Your task to perform on an android device: View the shopping cart on newegg.com. Add "razer huntsman" to the cart on newegg.com Image 0: 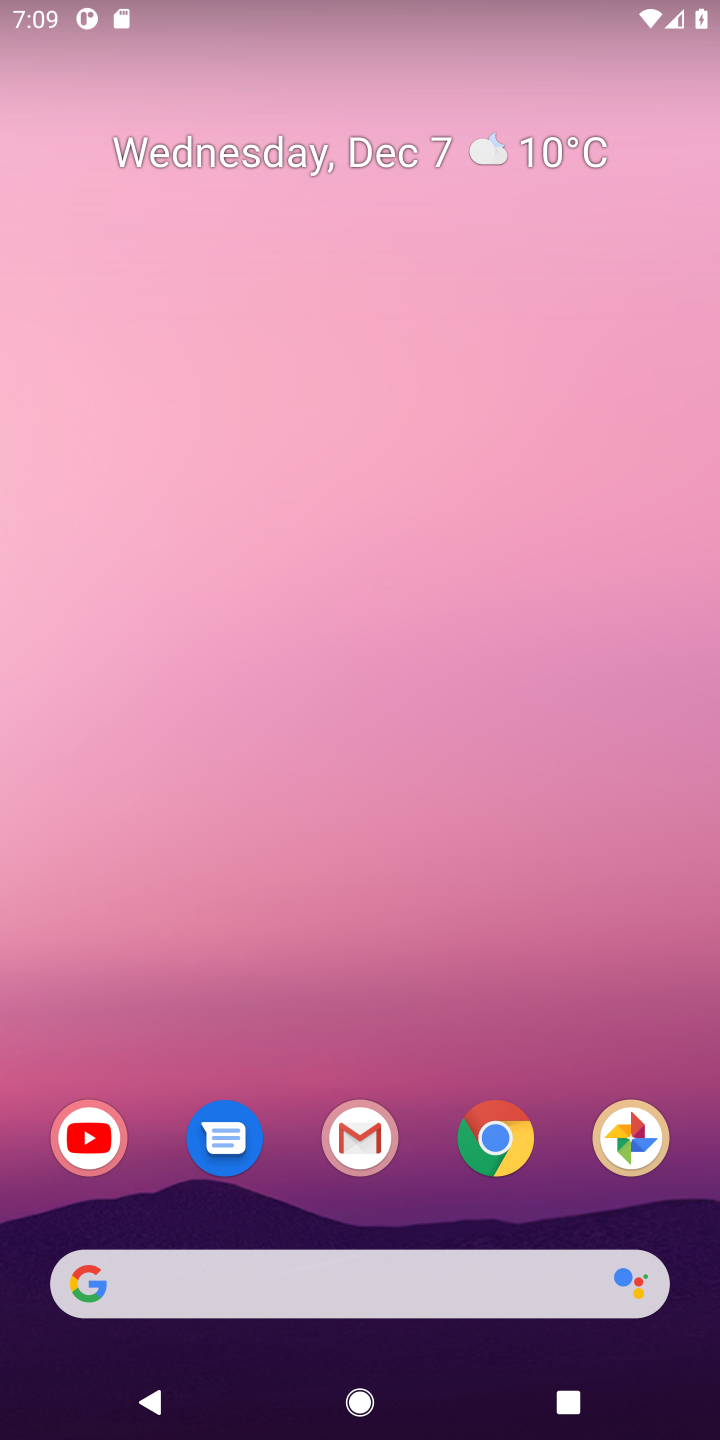
Step 0: press home button
Your task to perform on an android device: View the shopping cart on newegg.com. Add "razer huntsman" to the cart on newegg.com Image 1: 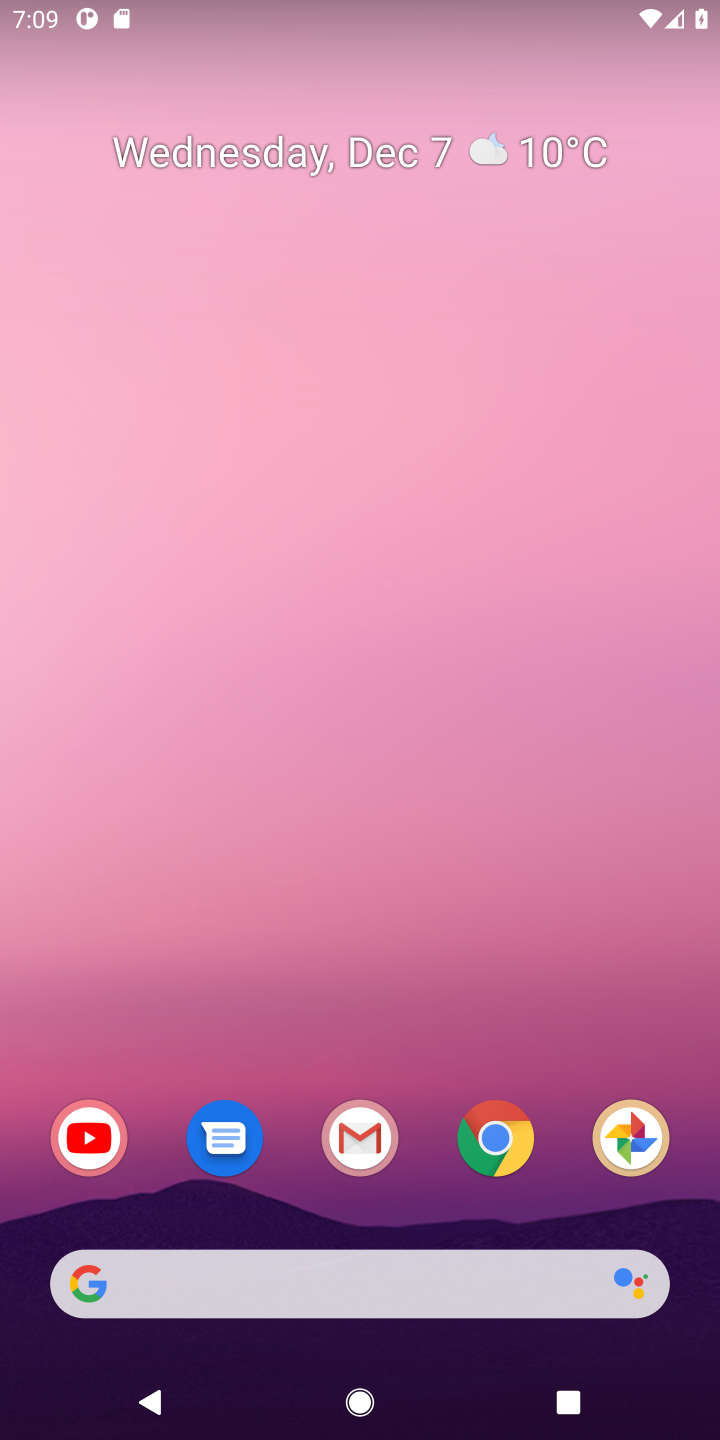
Step 1: click (151, 1285)
Your task to perform on an android device: View the shopping cart on newegg.com. Add "razer huntsman" to the cart on newegg.com Image 2: 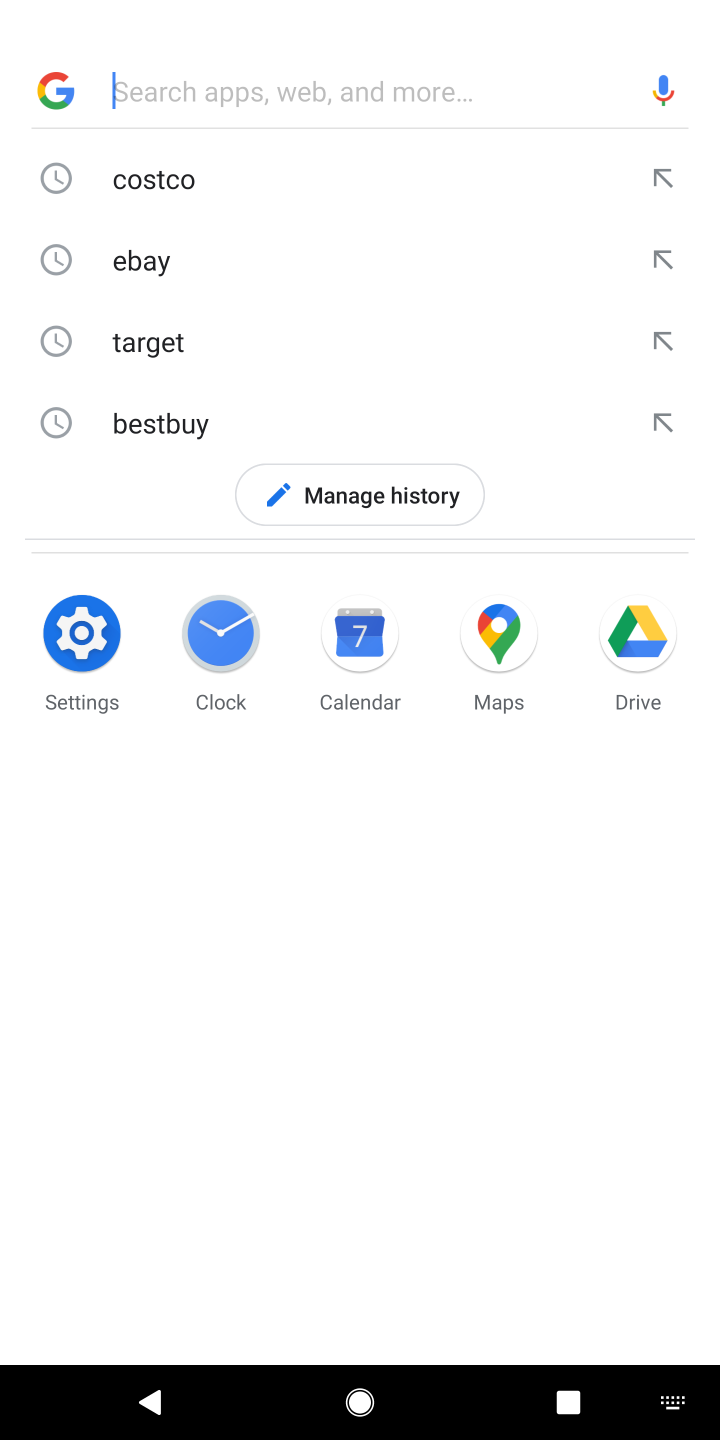
Step 2: type "newegg.com"
Your task to perform on an android device: View the shopping cart on newegg.com. Add "razer huntsman" to the cart on newegg.com Image 3: 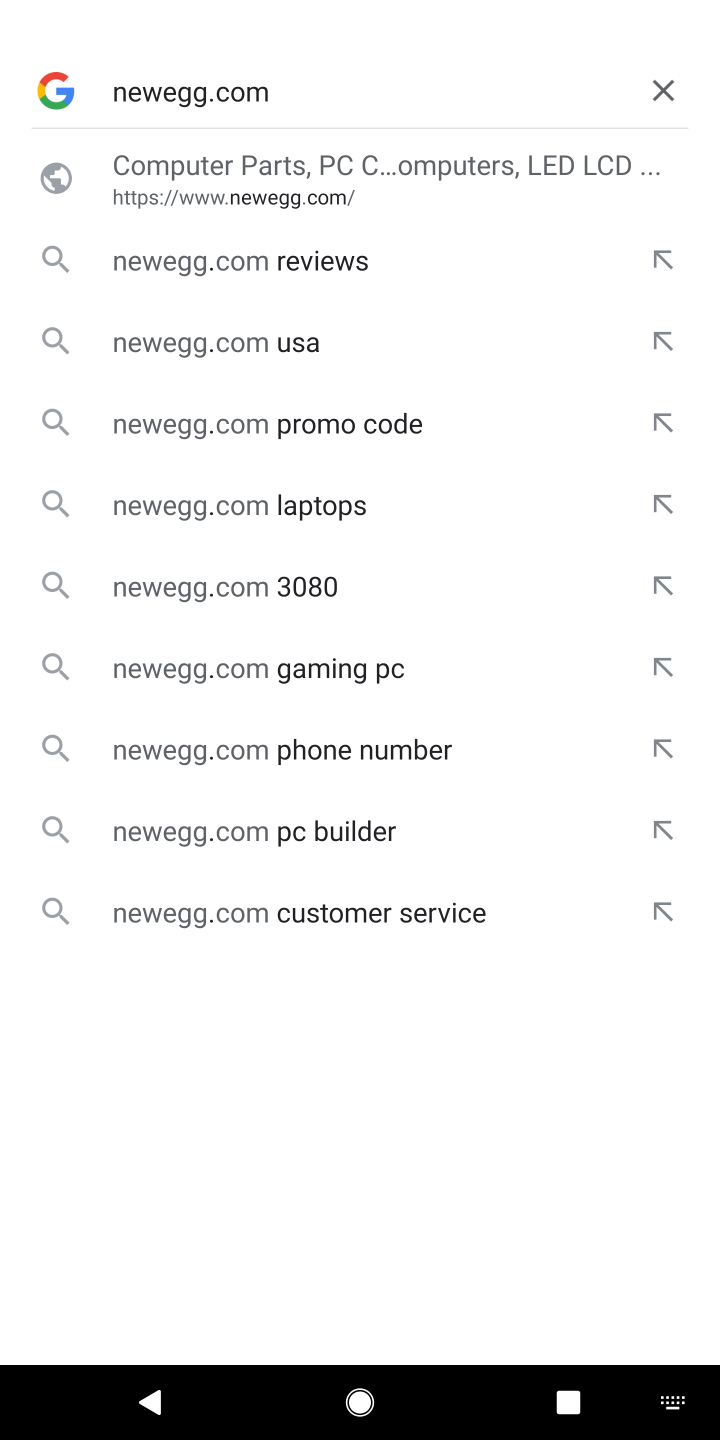
Step 3: press enter
Your task to perform on an android device: View the shopping cart on newegg.com. Add "razer huntsman" to the cart on newegg.com Image 4: 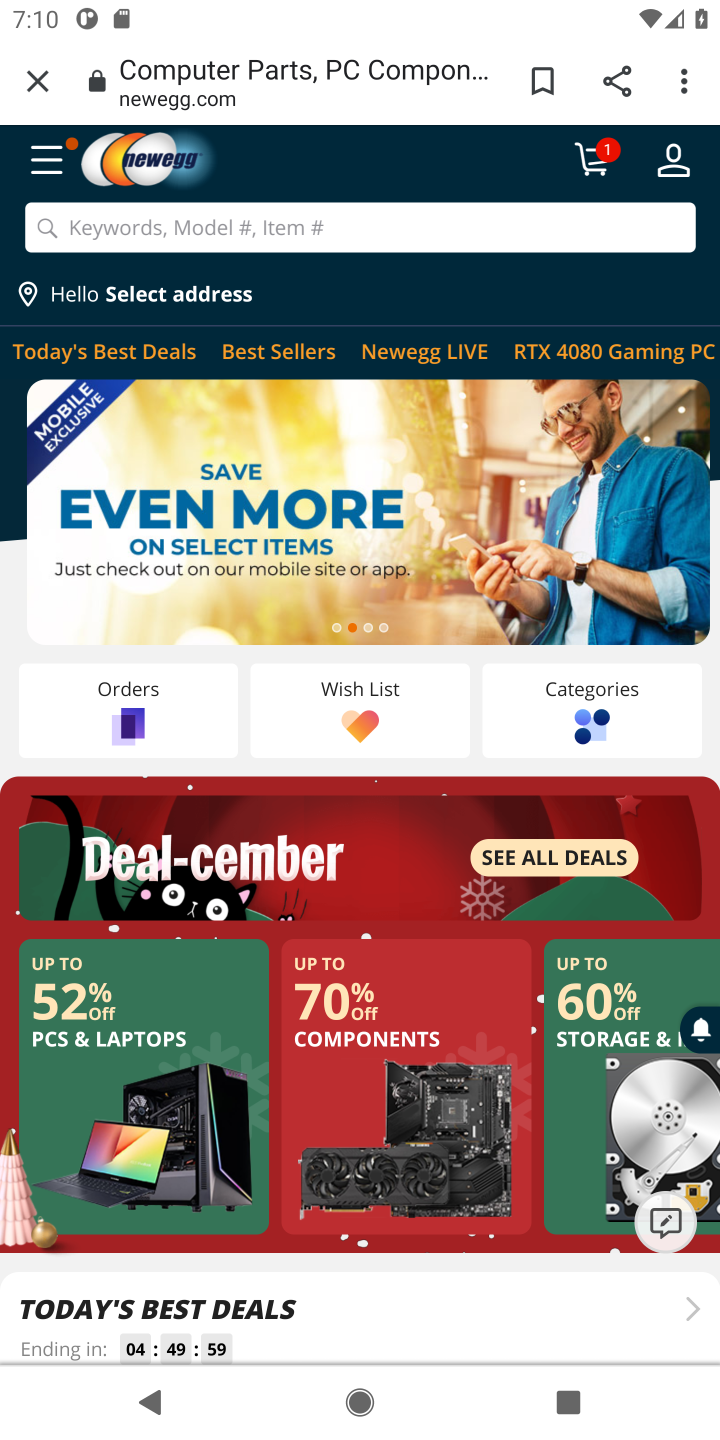
Step 4: click (592, 158)
Your task to perform on an android device: View the shopping cart on newegg.com. Add "razer huntsman" to the cart on newegg.com Image 5: 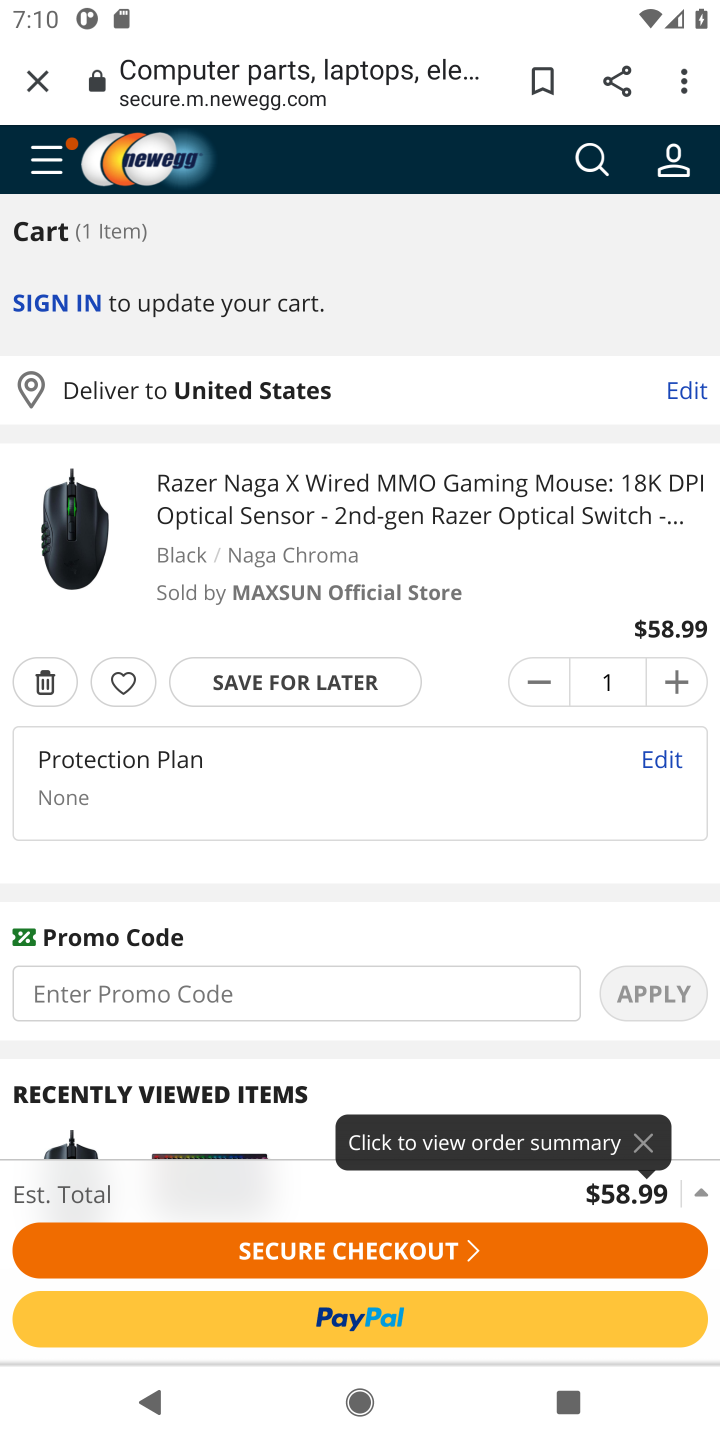
Step 5: press back button
Your task to perform on an android device: View the shopping cart on newegg.com. Add "razer huntsman" to the cart on newegg.com Image 6: 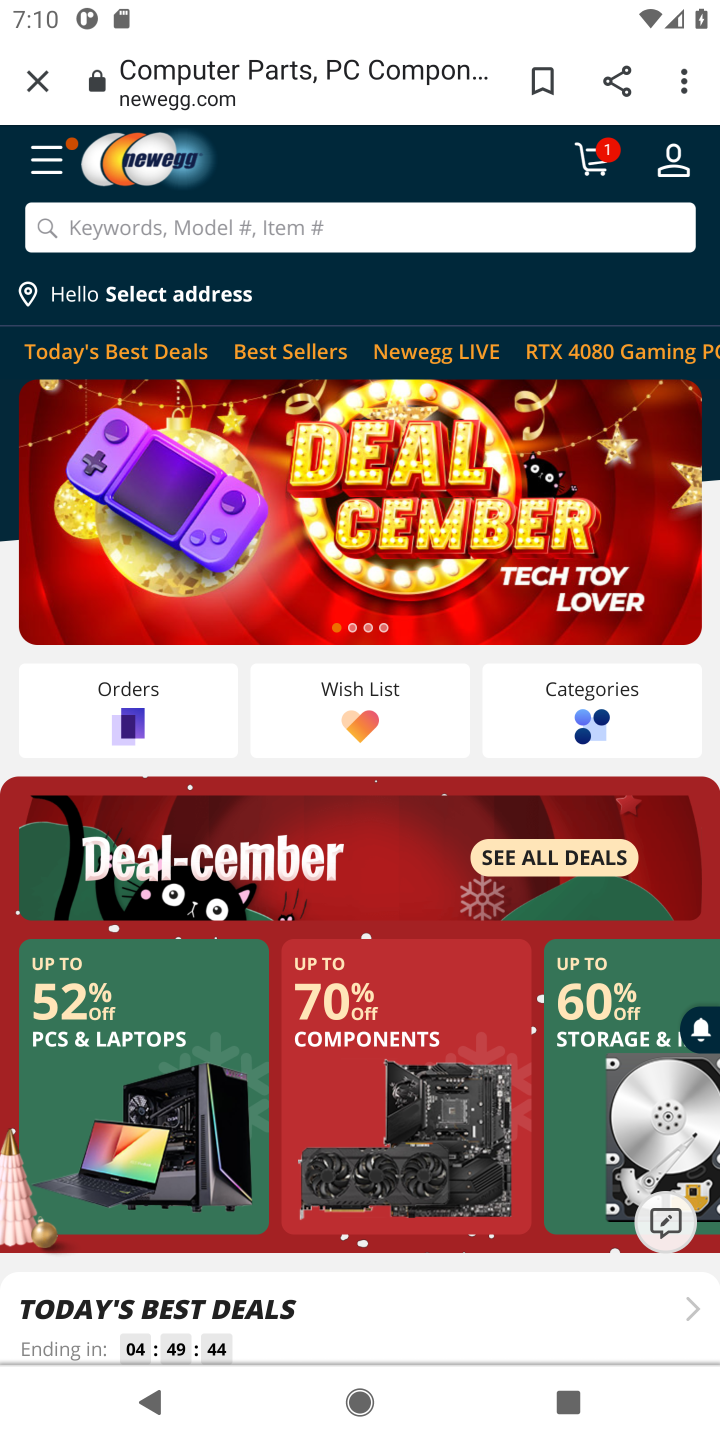
Step 6: click (323, 219)
Your task to perform on an android device: View the shopping cart on newegg.com. Add "razer huntsman" to the cart on newegg.com Image 7: 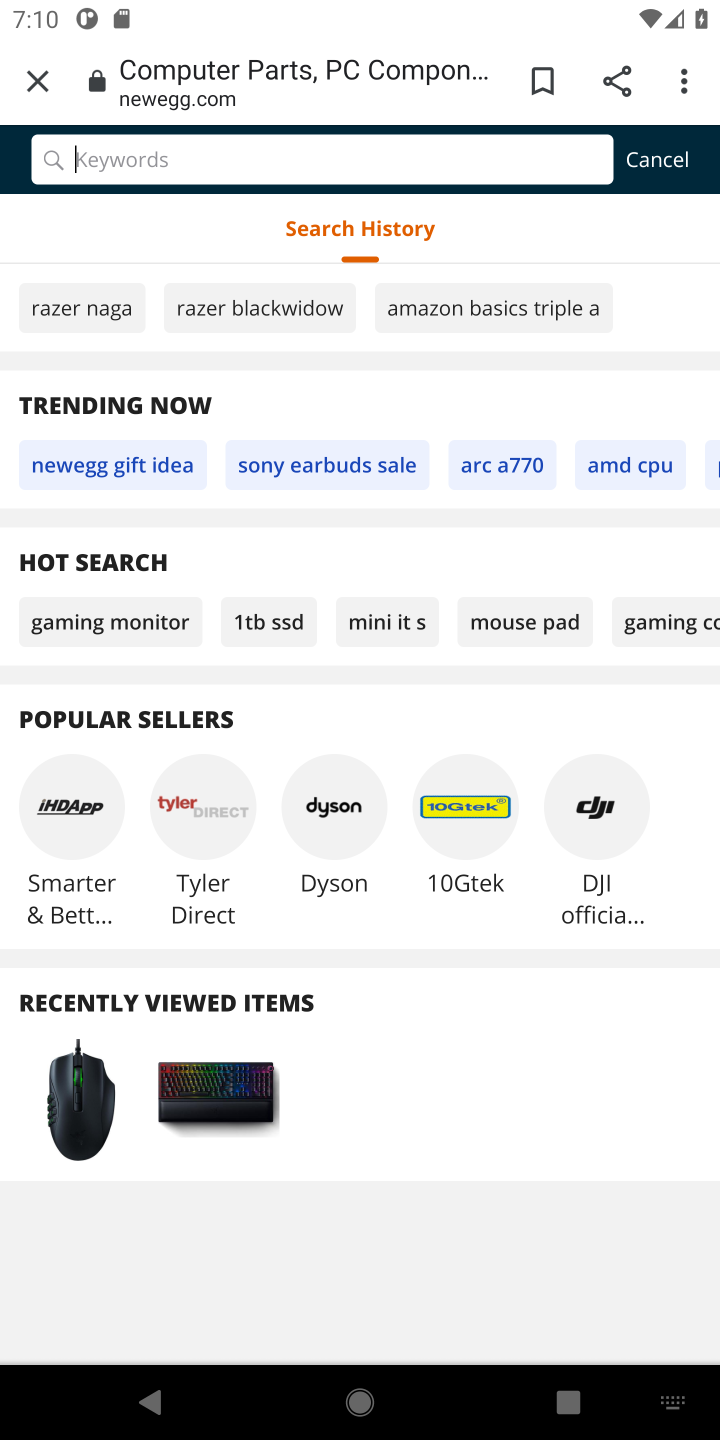
Step 7: type "razer huntsman"
Your task to perform on an android device: View the shopping cart on newegg.com. Add "razer huntsman" to the cart on newegg.com Image 8: 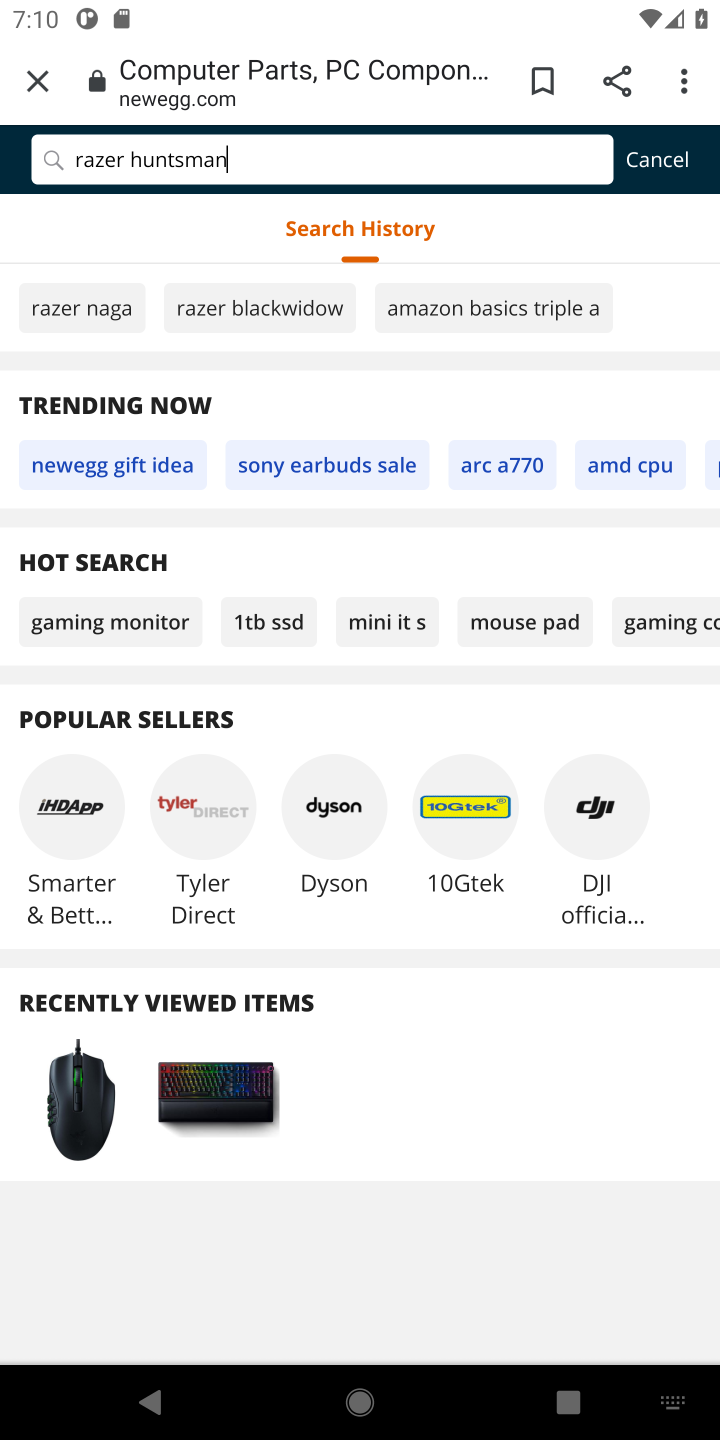
Step 8: press enter
Your task to perform on an android device: View the shopping cart on newegg.com. Add "razer huntsman" to the cart on newegg.com Image 9: 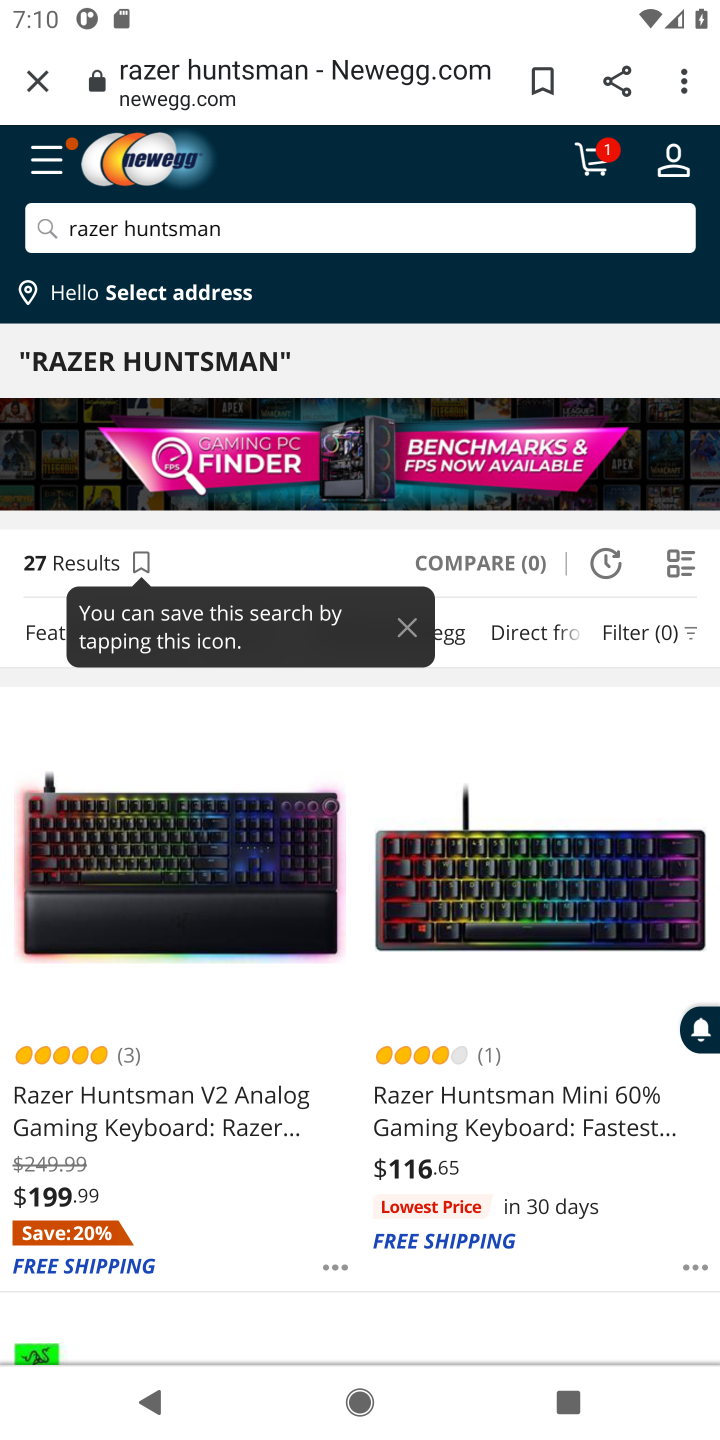
Step 9: click (96, 1139)
Your task to perform on an android device: View the shopping cart on newegg.com. Add "razer huntsman" to the cart on newegg.com Image 10: 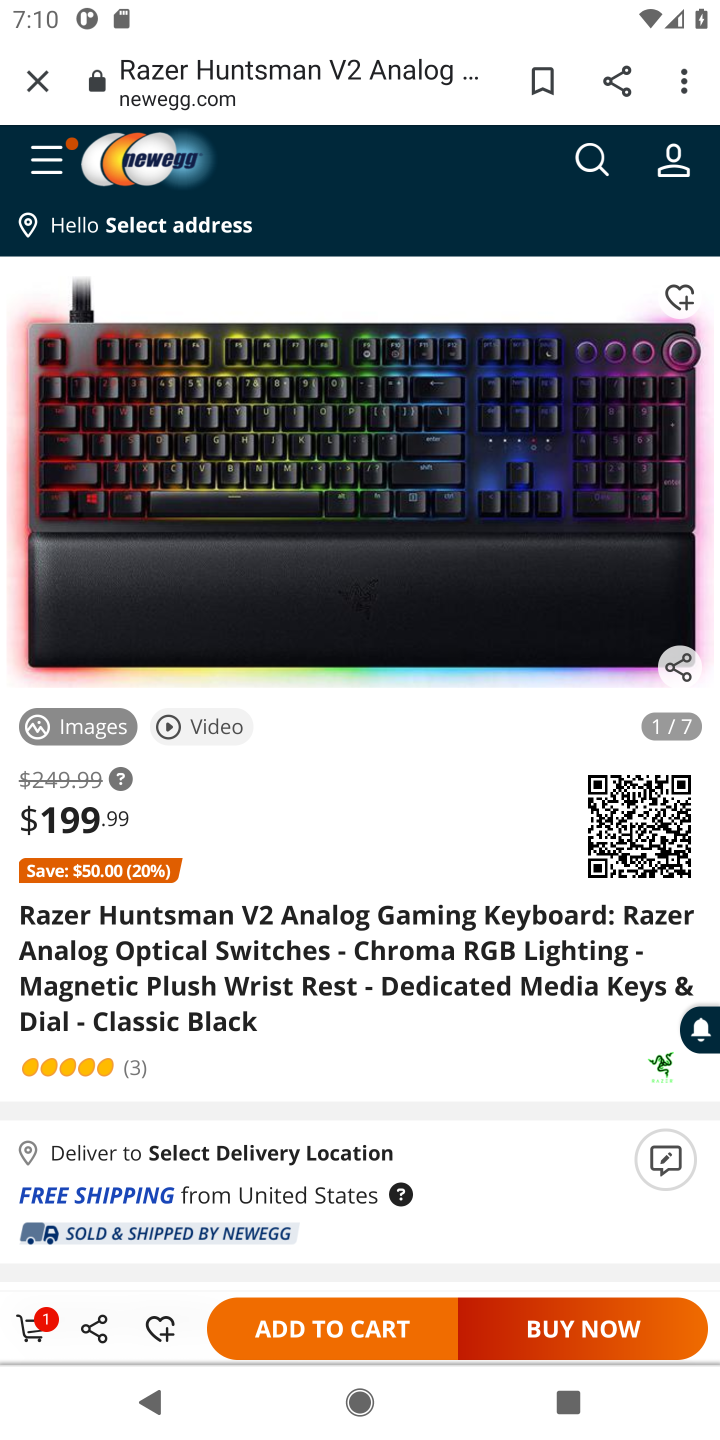
Step 10: click (306, 1325)
Your task to perform on an android device: View the shopping cart on newegg.com. Add "razer huntsman" to the cart on newegg.com Image 11: 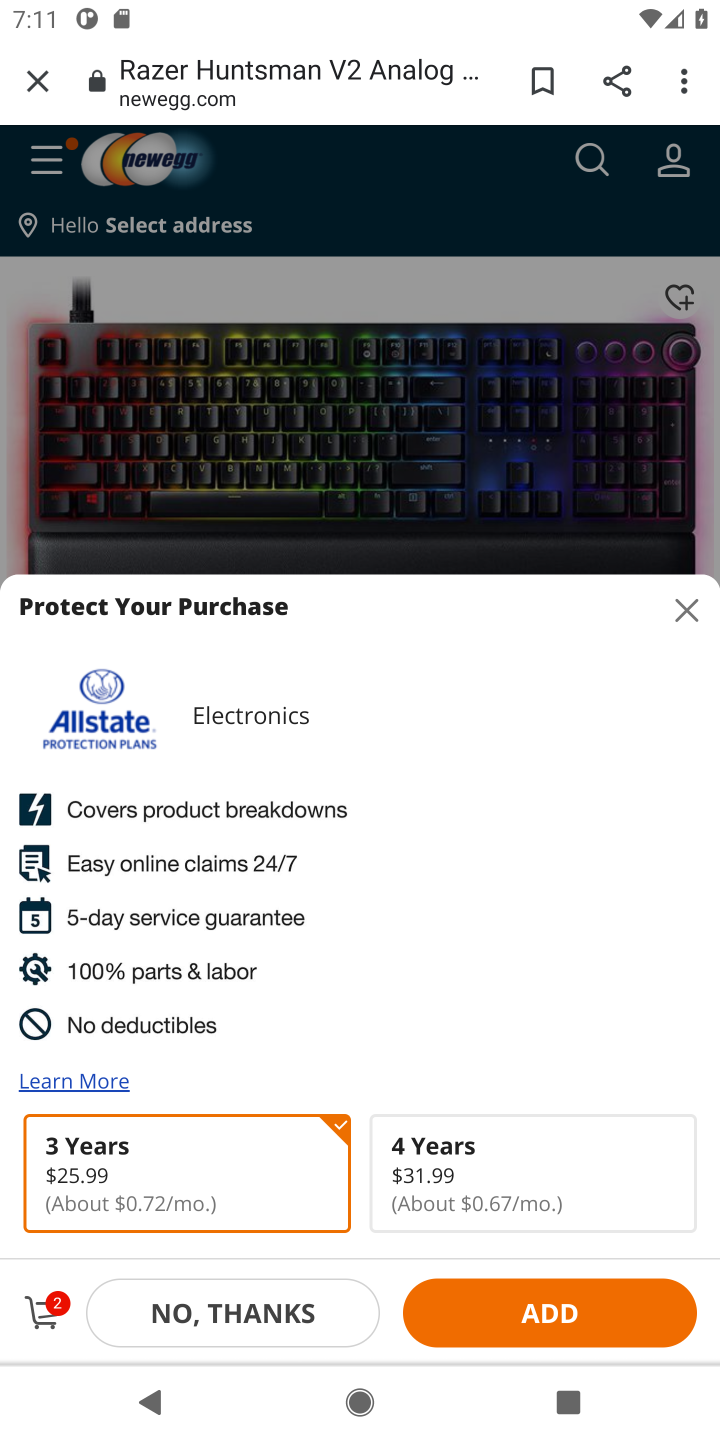
Step 11: click (253, 1315)
Your task to perform on an android device: View the shopping cart on newegg.com. Add "razer huntsman" to the cart on newegg.com Image 12: 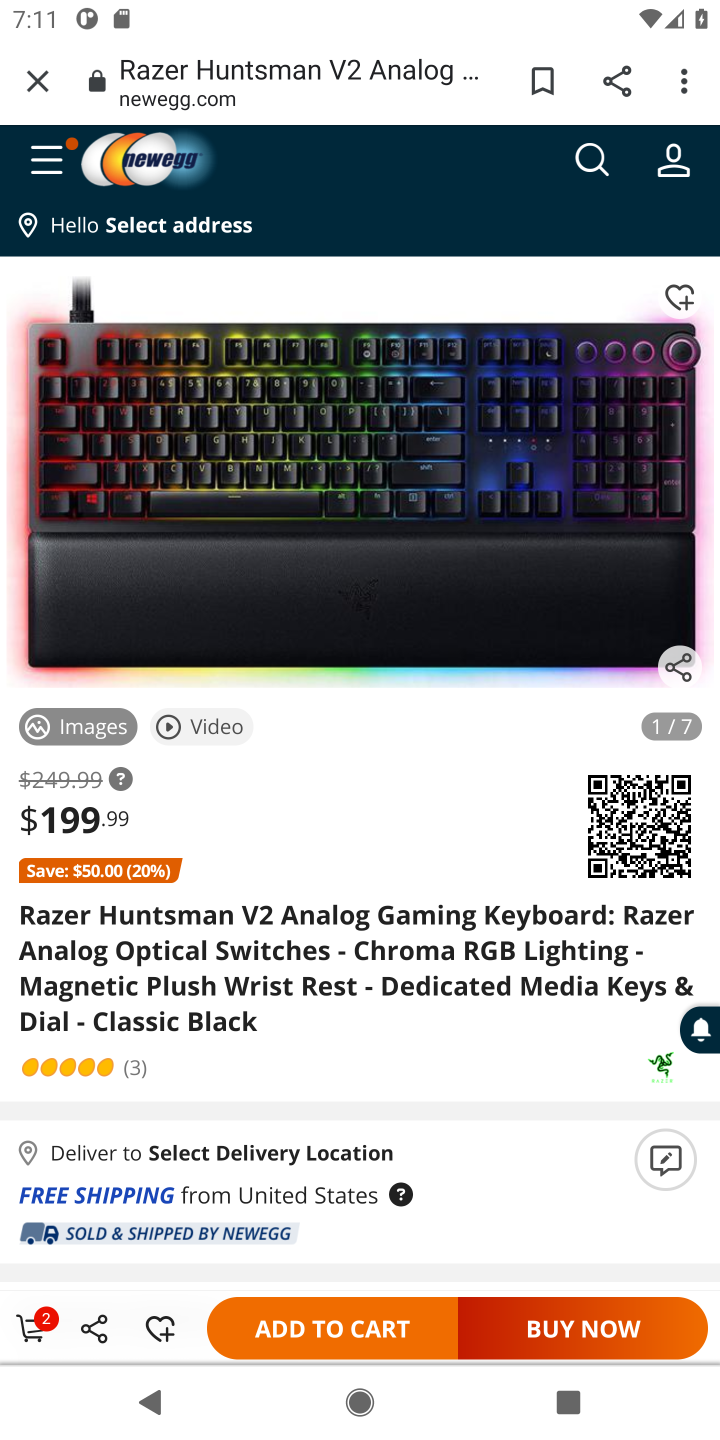
Step 12: task complete